Your task to perform on an android device: change alarm snooze length Image 0: 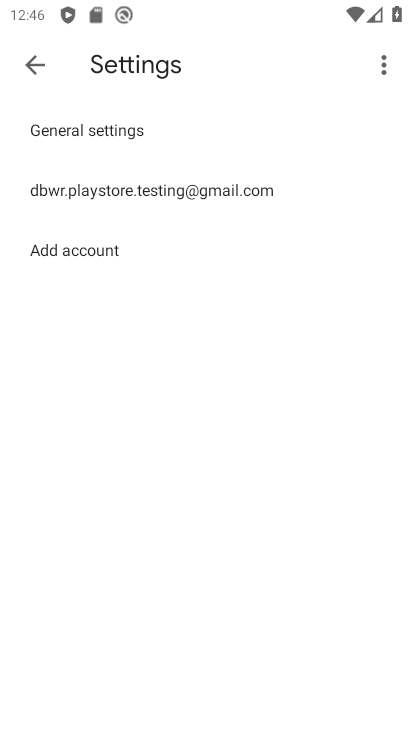
Step 0: press home button
Your task to perform on an android device: change alarm snooze length Image 1: 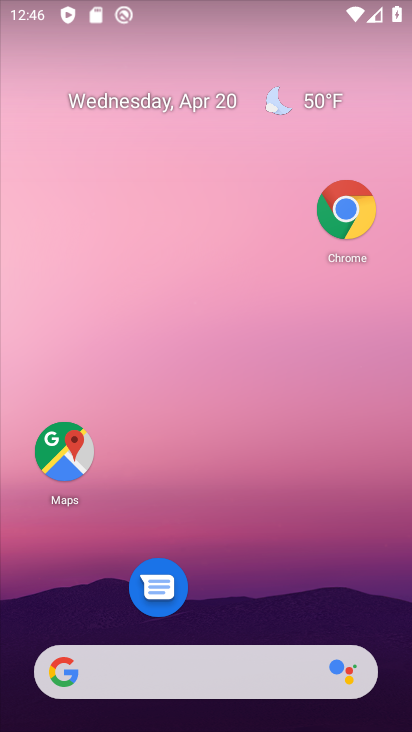
Step 1: drag from (222, 569) to (336, 14)
Your task to perform on an android device: change alarm snooze length Image 2: 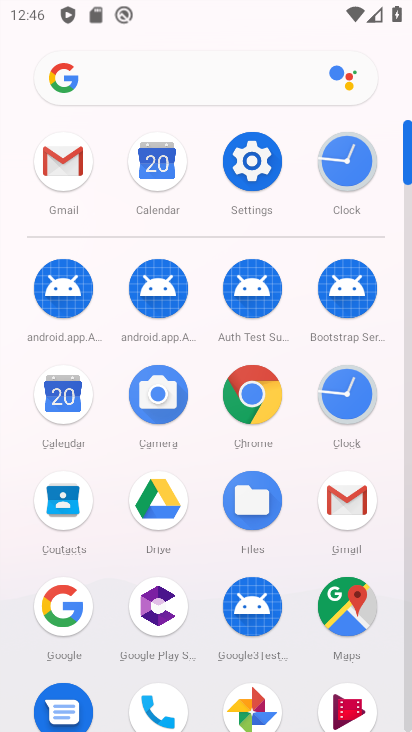
Step 2: click (356, 393)
Your task to perform on an android device: change alarm snooze length Image 3: 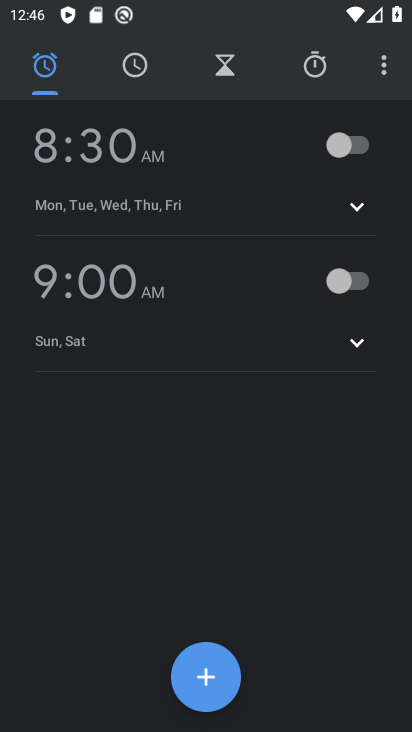
Step 3: click (385, 56)
Your task to perform on an android device: change alarm snooze length Image 4: 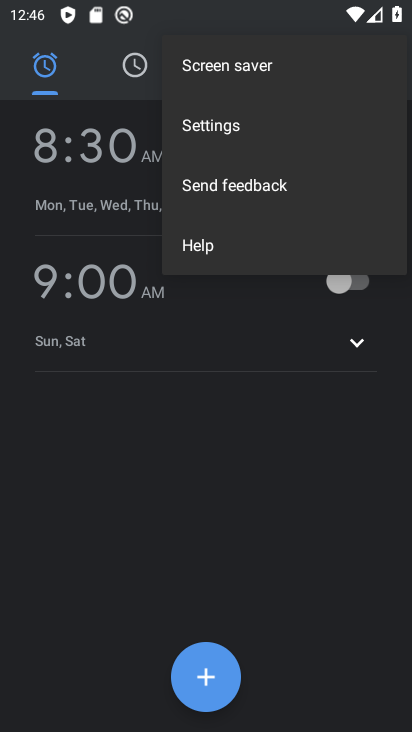
Step 4: click (218, 137)
Your task to perform on an android device: change alarm snooze length Image 5: 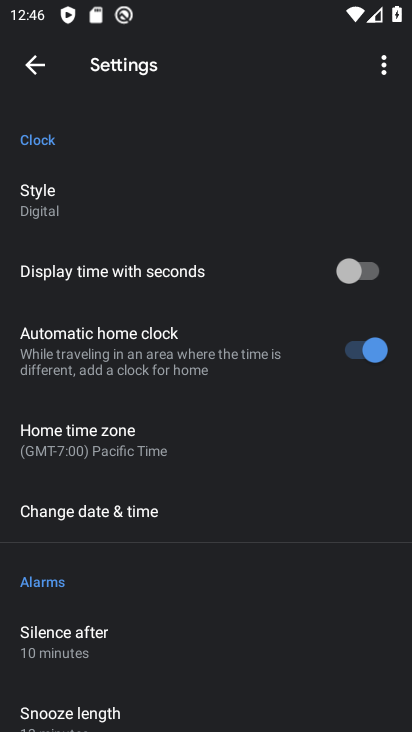
Step 5: drag from (124, 625) to (150, 184)
Your task to perform on an android device: change alarm snooze length Image 6: 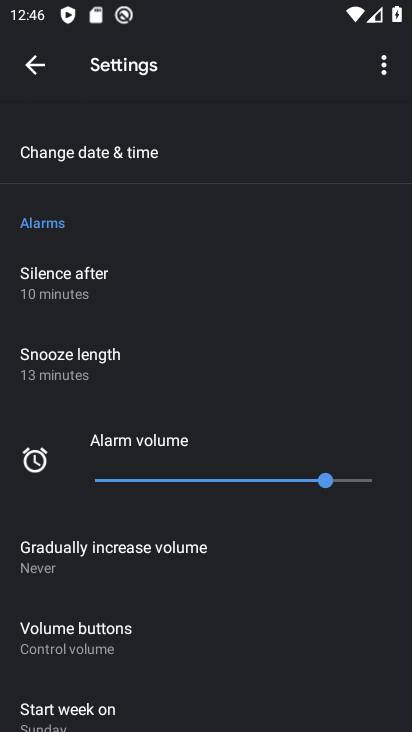
Step 6: click (94, 374)
Your task to perform on an android device: change alarm snooze length Image 7: 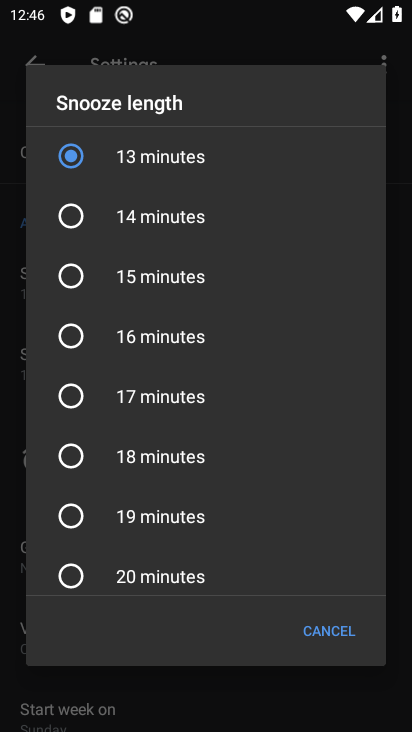
Step 7: click (78, 285)
Your task to perform on an android device: change alarm snooze length Image 8: 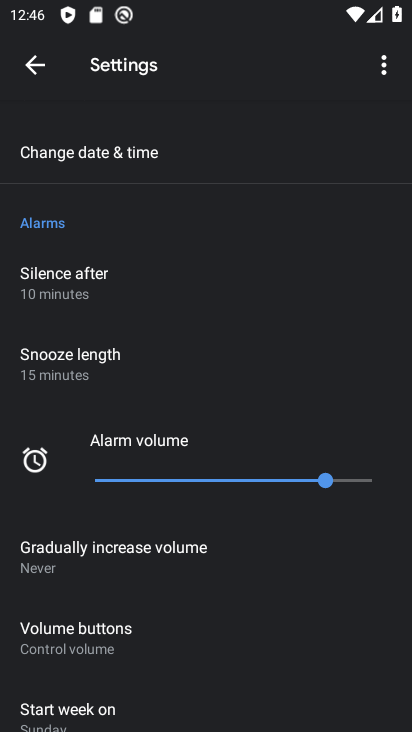
Step 8: task complete